Your task to perform on an android device: Search for seafood restaurants on Google Maps Image 0: 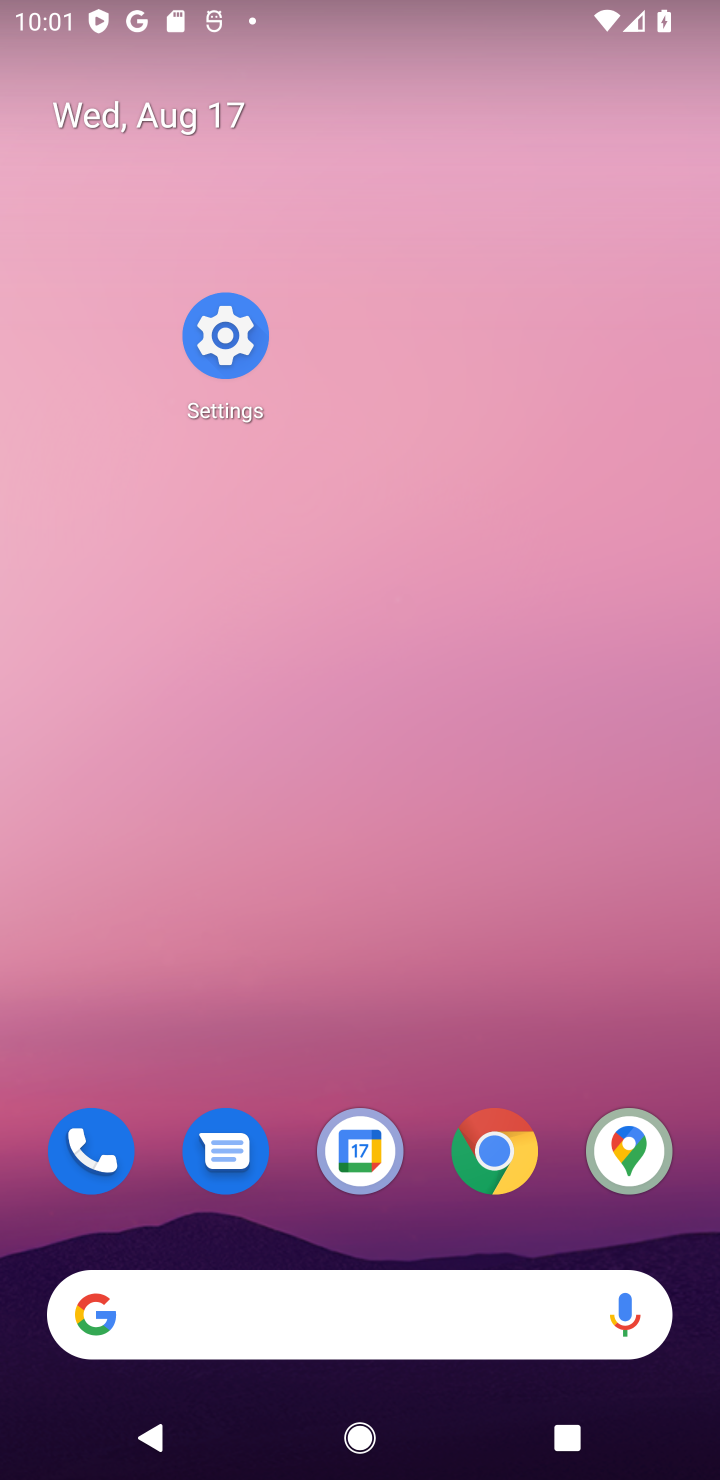
Step 0: click (640, 1147)
Your task to perform on an android device: Search for seafood restaurants on Google Maps Image 1: 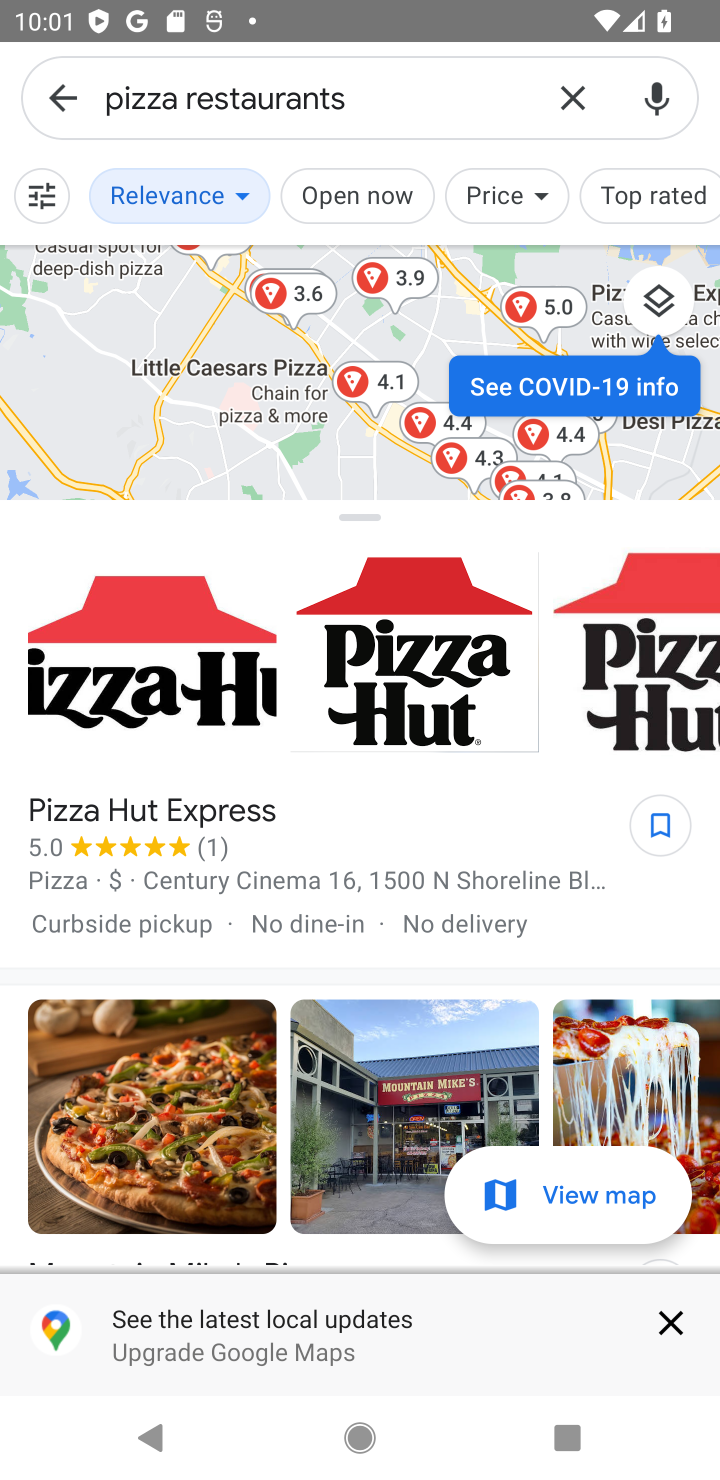
Step 1: click (62, 93)
Your task to perform on an android device: Search for seafood restaurants on Google Maps Image 2: 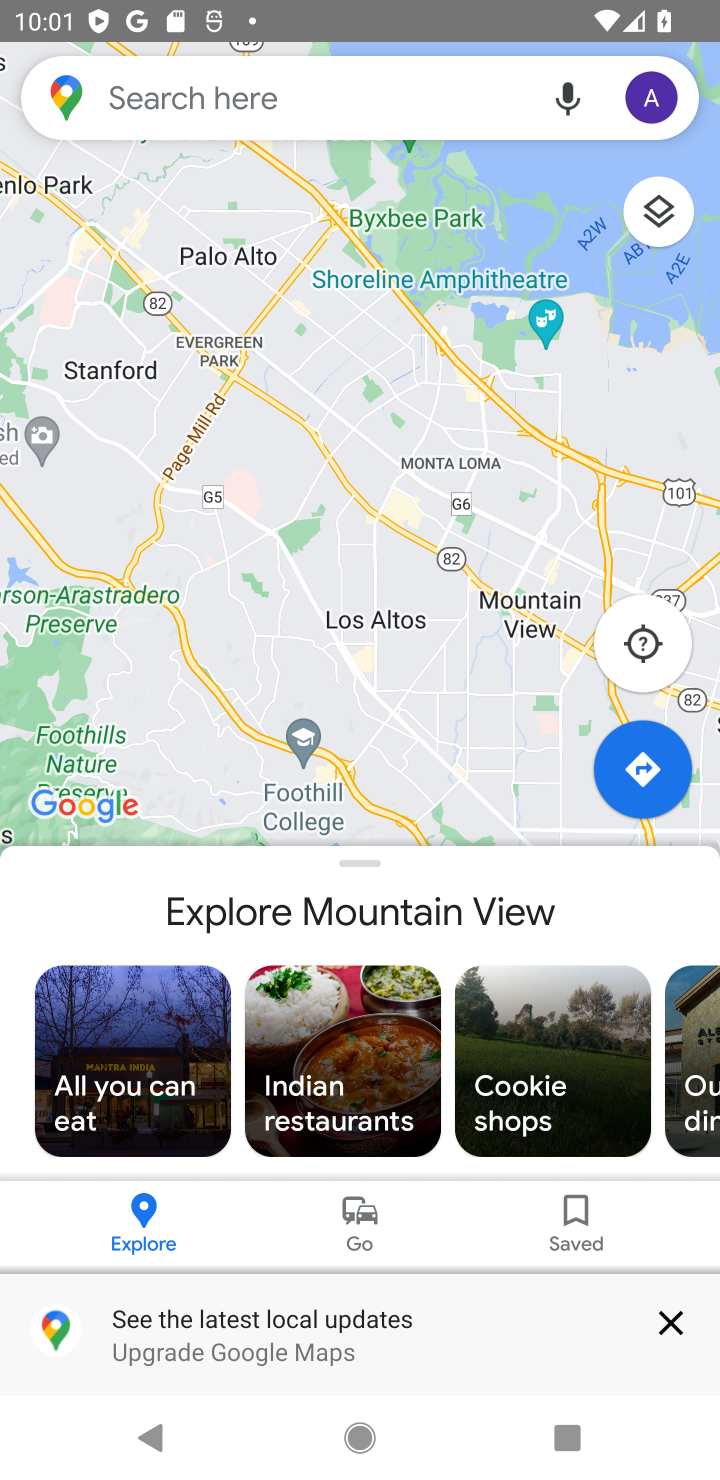
Step 2: click (180, 78)
Your task to perform on an android device: Search for seafood restaurants on Google Maps Image 3: 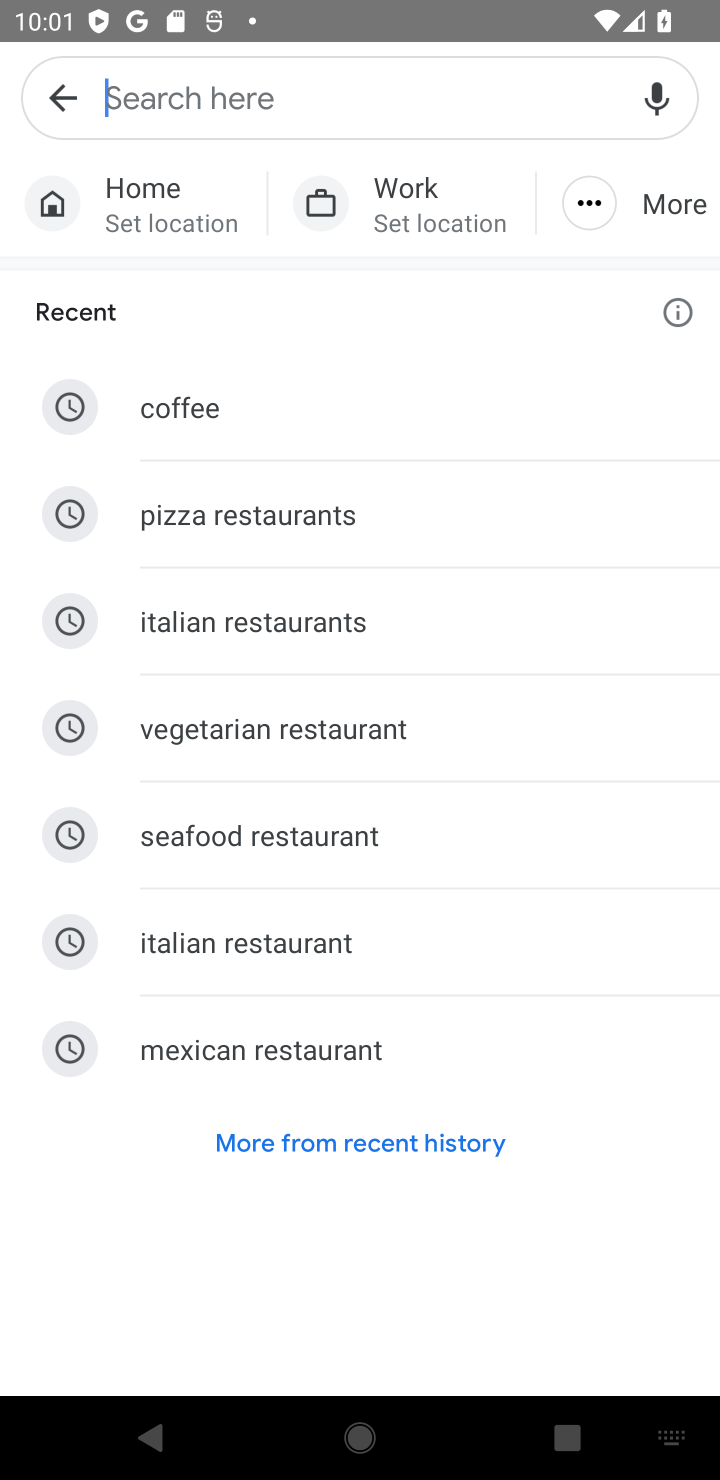
Step 3: type "seafood restaurants"
Your task to perform on an android device: Search for seafood restaurants on Google Maps Image 4: 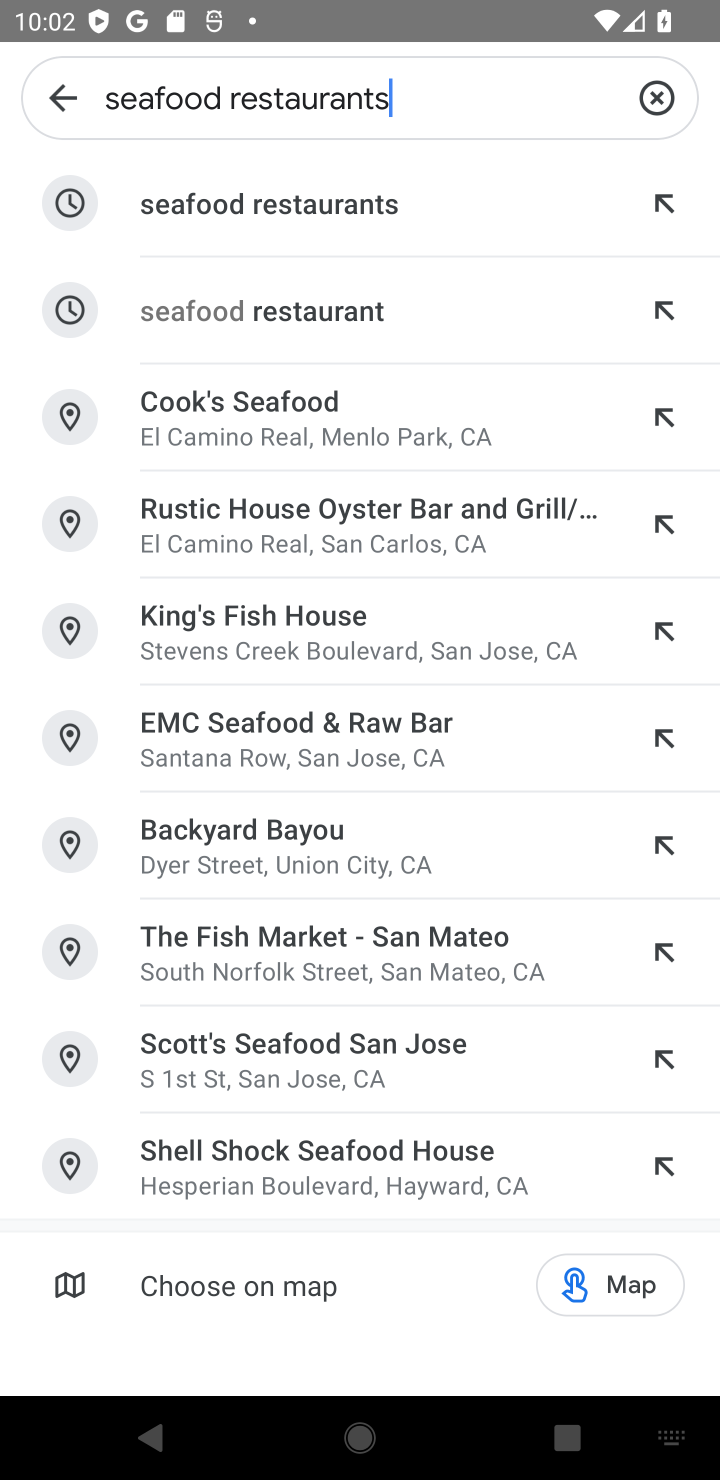
Step 4: click (272, 207)
Your task to perform on an android device: Search for seafood restaurants on Google Maps Image 5: 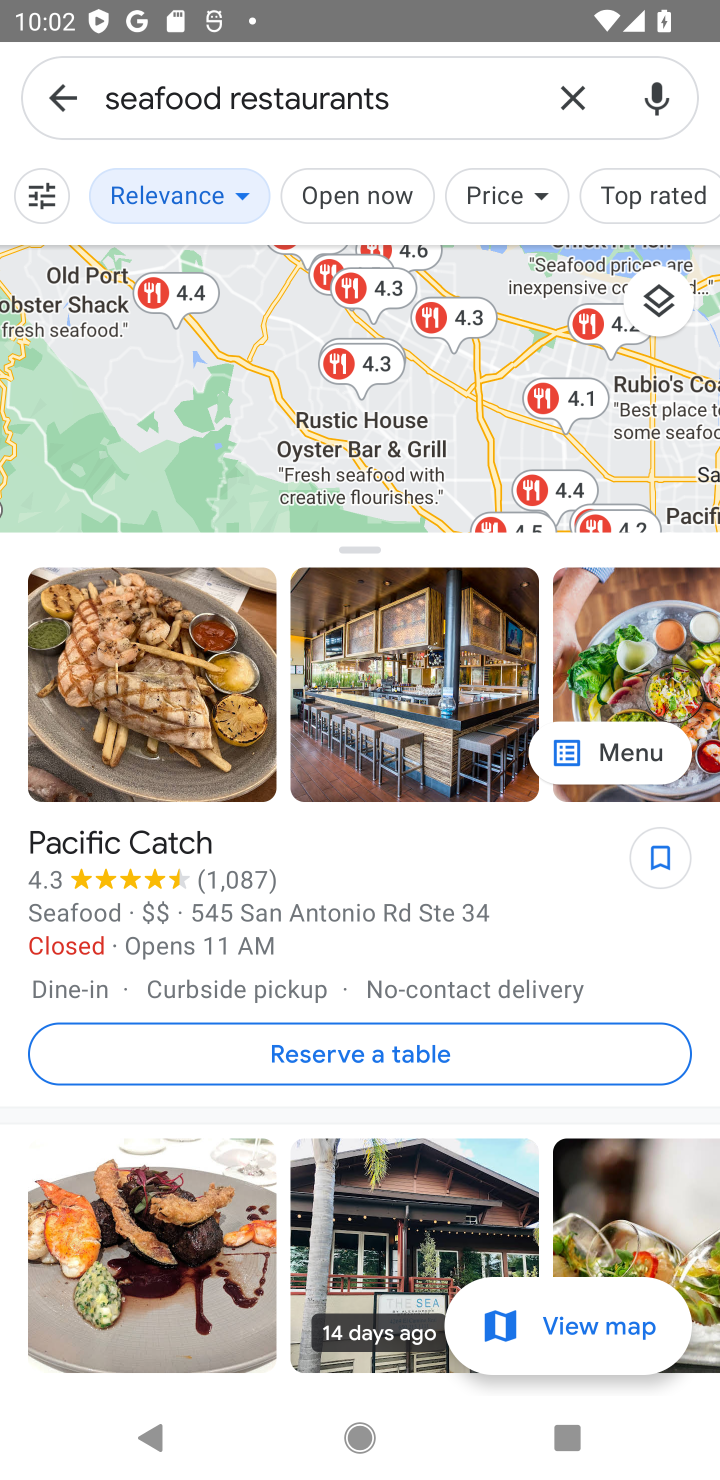
Step 5: task complete